Your task to perform on an android device: change the clock display to digital Image 0: 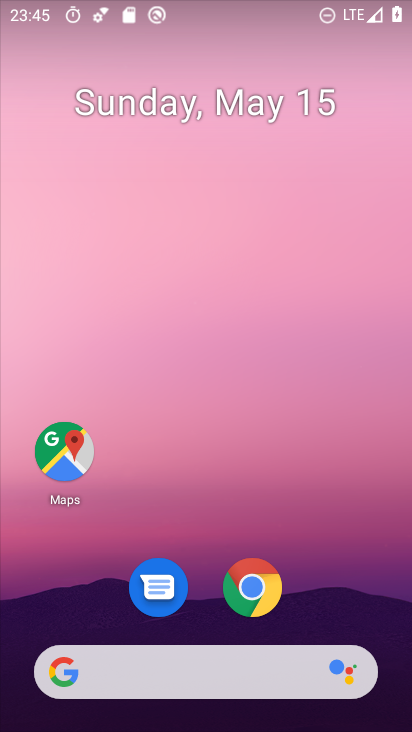
Step 0: drag from (216, 568) to (221, 268)
Your task to perform on an android device: change the clock display to digital Image 1: 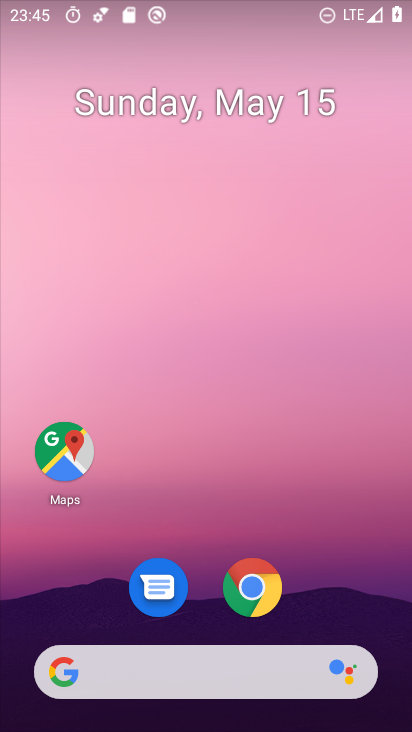
Step 1: drag from (207, 632) to (217, 220)
Your task to perform on an android device: change the clock display to digital Image 2: 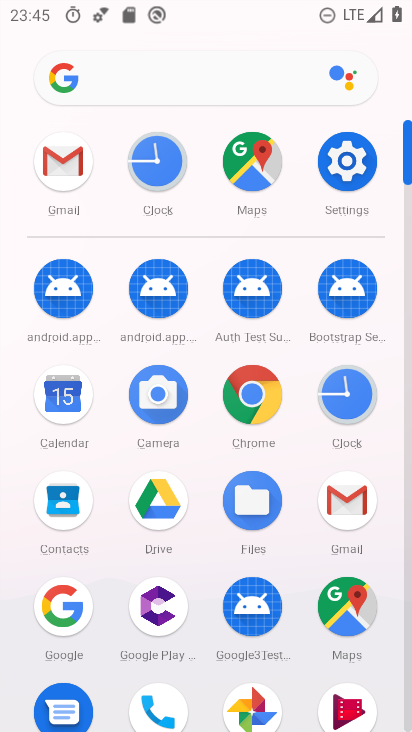
Step 2: click (359, 410)
Your task to perform on an android device: change the clock display to digital Image 3: 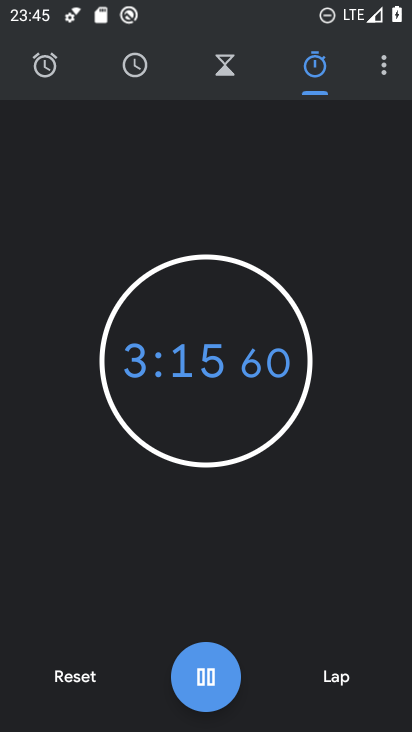
Step 3: click (389, 61)
Your task to perform on an android device: change the clock display to digital Image 4: 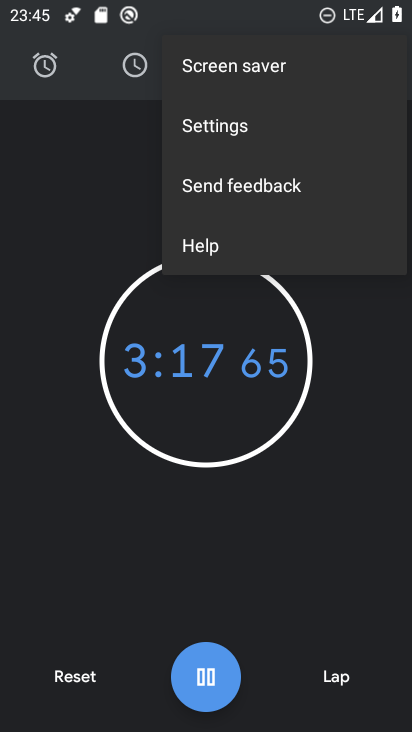
Step 4: click (280, 120)
Your task to perform on an android device: change the clock display to digital Image 5: 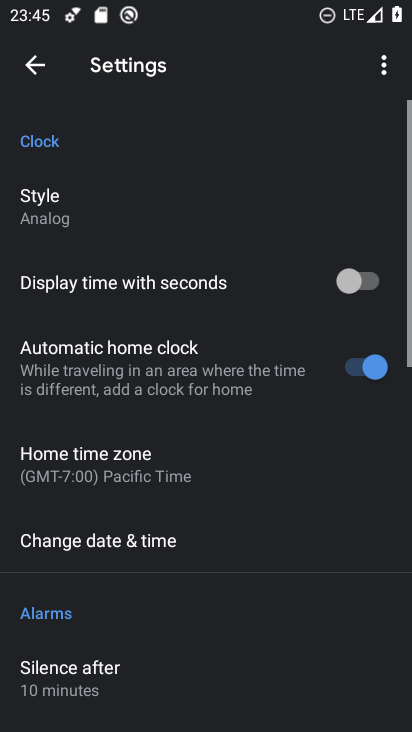
Step 5: click (94, 206)
Your task to perform on an android device: change the clock display to digital Image 6: 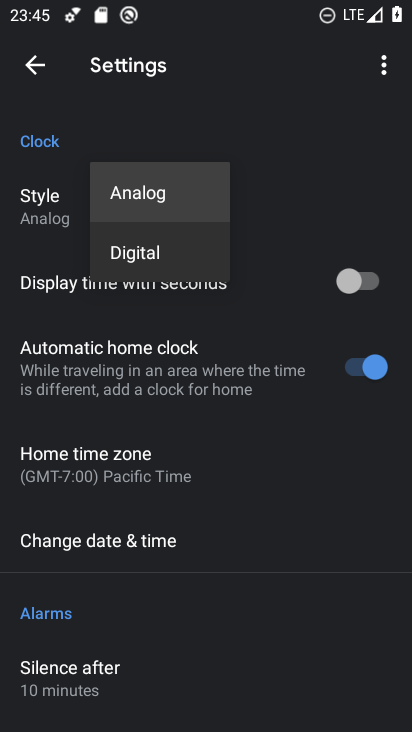
Step 6: click (128, 240)
Your task to perform on an android device: change the clock display to digital Image 7: 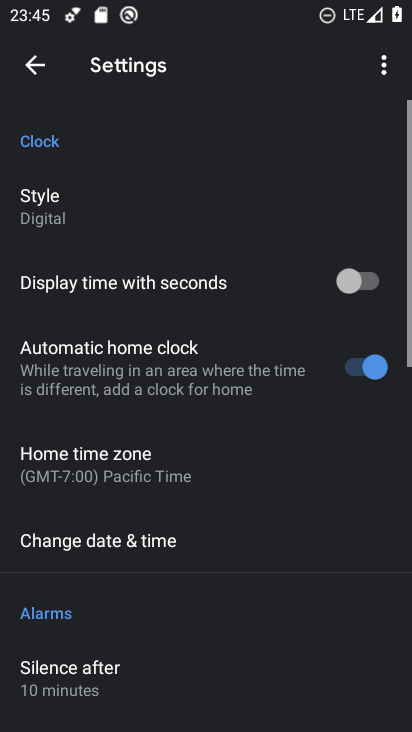
Step 7: task complete